Your task to perform on an android device: open device folders in google photos Image 0: 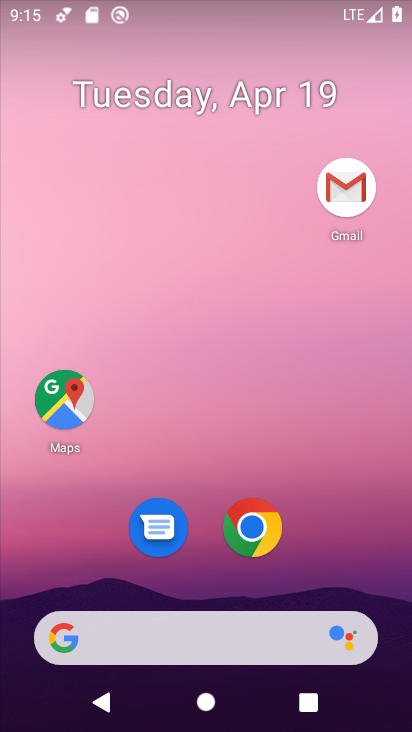
Step 0: drag from (362, 551) to (363, 61)
Your task to perform on an android device: open device folders in google photos Image 1: 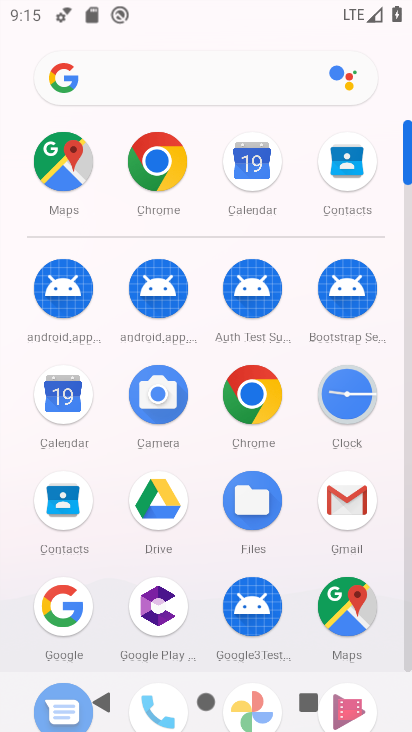
Step 1: drag from (285, 548) to (293, 249)
Your task to perform on an android device: open device folders in google photos Image 2: 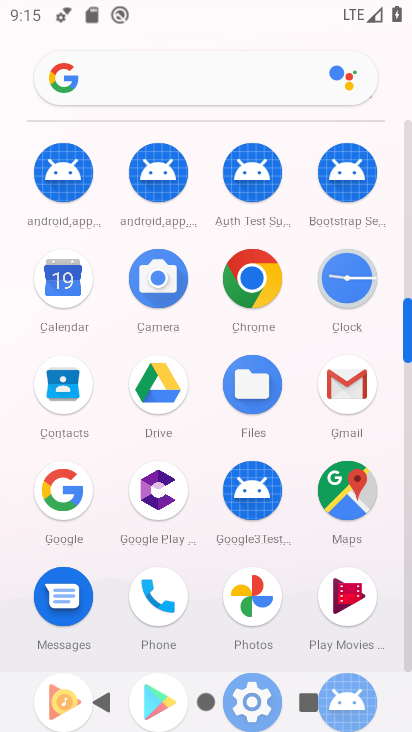
Step 2: click (254, 598)
Your task to perform on an android device: open device folders in google photos Image 3: 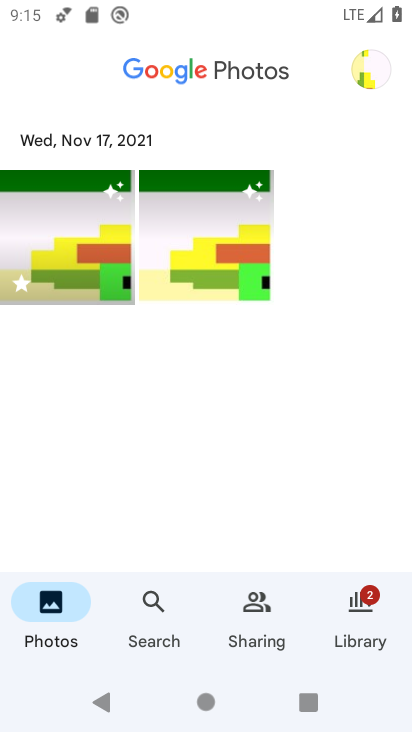
Step 3: click (361, 607)
Your task to perform on an android device: open device folders in google photos Image 4: 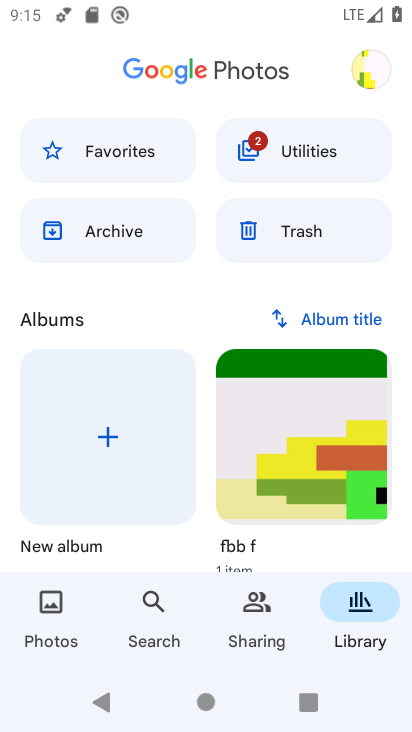
Step 4: task complete